Your task to perform on an android device: refresh tabs in the chrome app Image 0: 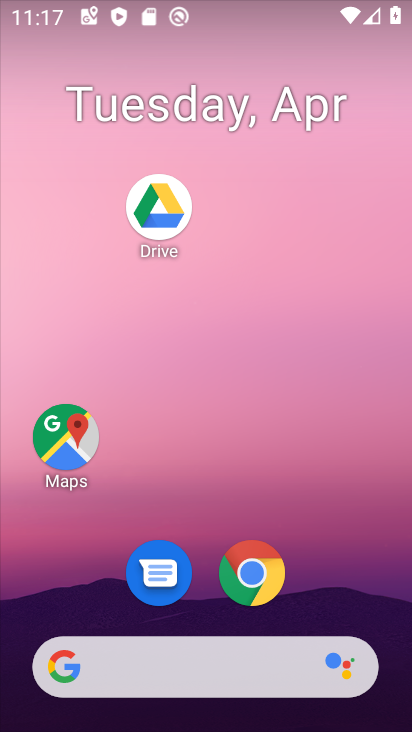
Step 0: drag from (343, 489) to (356, 87)
Your task to perform on an android device: refresh tabs in the chrome app Image 1: 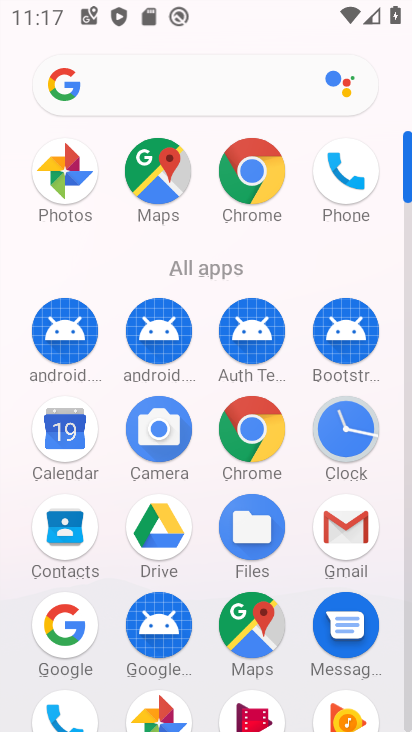
Step 1: click (255, 180)
Your task to perform on an android device: refresh tabs in the chrome app Image 2: 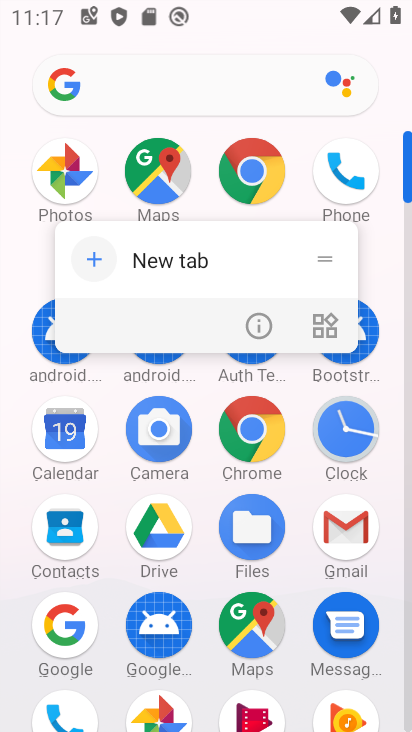
Step 2: click (256, 168)
Your task to perform on an android device: refresh tabs in the chrome app Image 3: 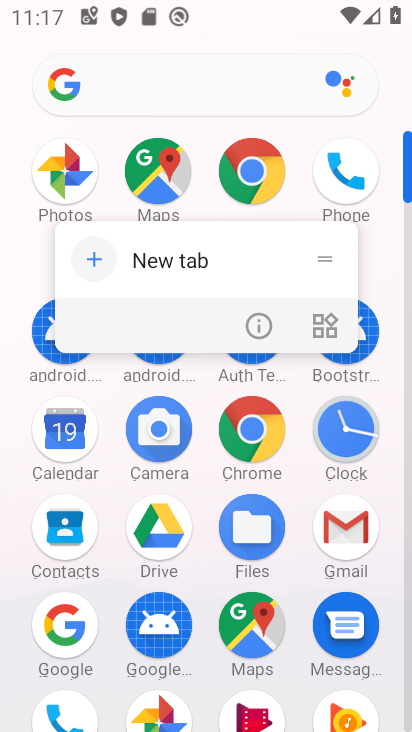
Step 3: click (253, 158)
Your task to perform on an android device: refresh tabs in the chrome app Image 4: 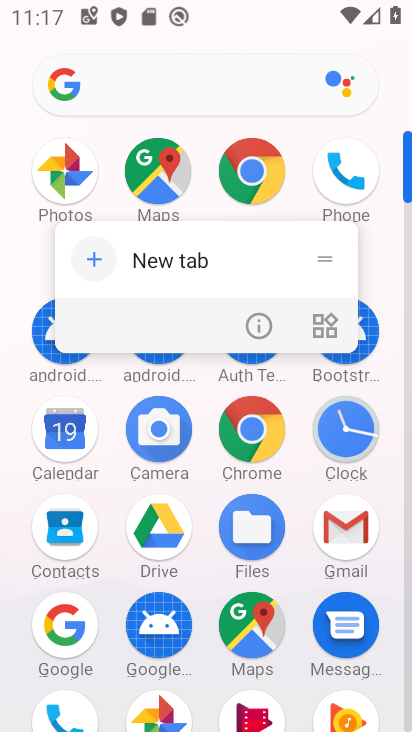
Step 4: click (239, 181)
Your task to perform on an android device: refresh tabs in the chrome app Image 5: 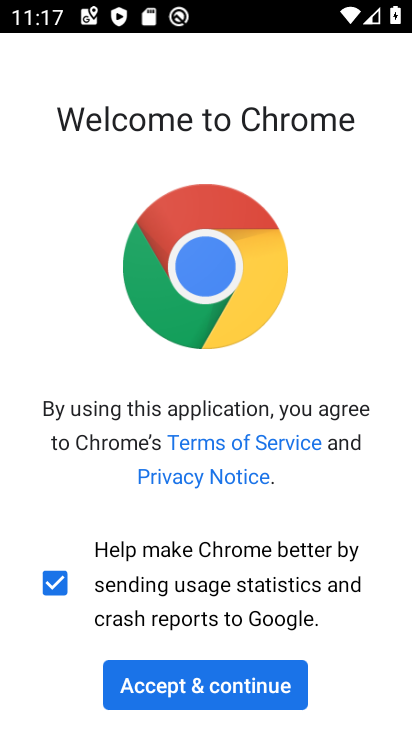
Step 5: click (221, 681)
Your task to perform on an android device: refresh tabs in the chrome app Image 6: 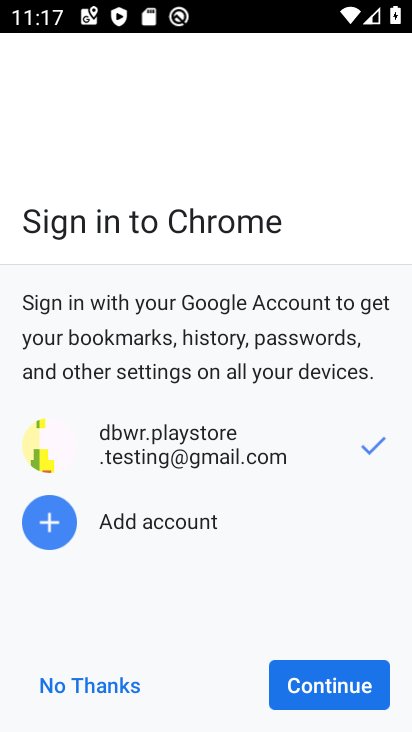
Step 6: click (334, 688)
Your task to perform on an android device: refresh tabs in the chrome app Image 7: 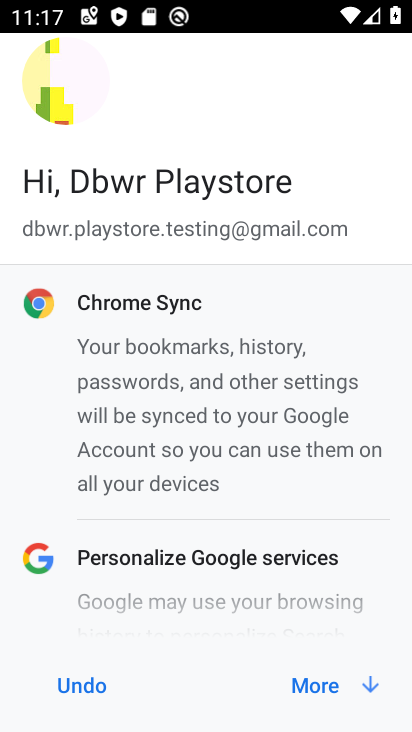
Step 7: click (334, 688)
Your task to perform on an android device: refresh tabs in the chrome app Image 8: 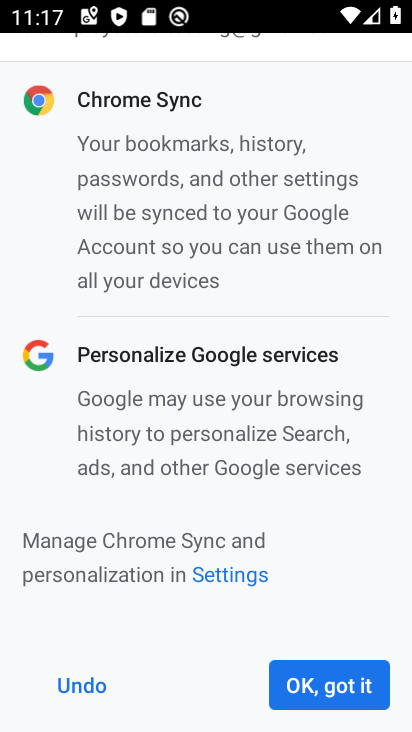
Step 8: click (334, 688)
Your task to perform on an android device: refresh tabs in the chrome app Image 9: 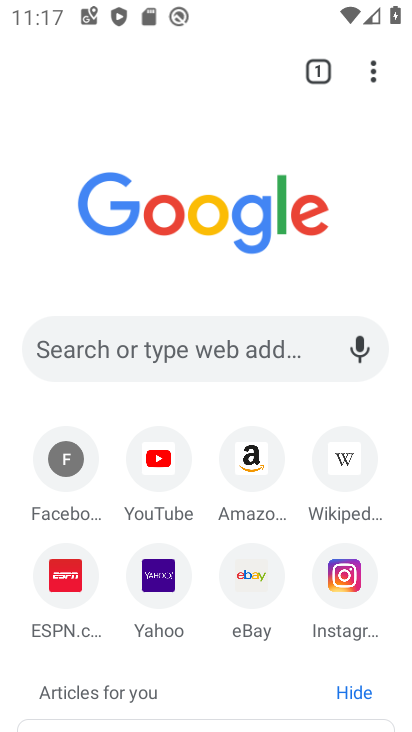
Step 9: click (374, 70)
Your task to perform on an android device: refresh tabs in the chrome app Image 10: 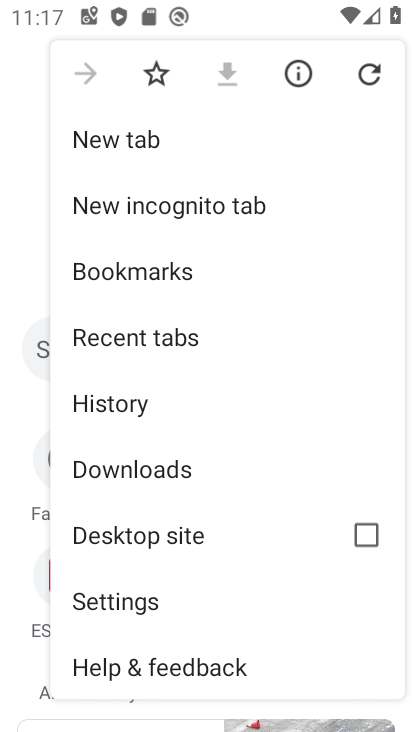
Step 10: click (369, 73)
Your task to perform on an android device: refresh tabs in the chrome app Image 11: 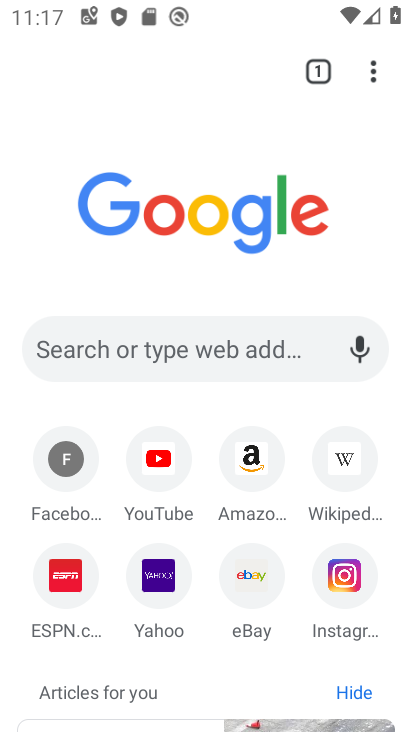
Step 11: task complete